Your task to perform on an android device: change the clock display to analog Image 0: 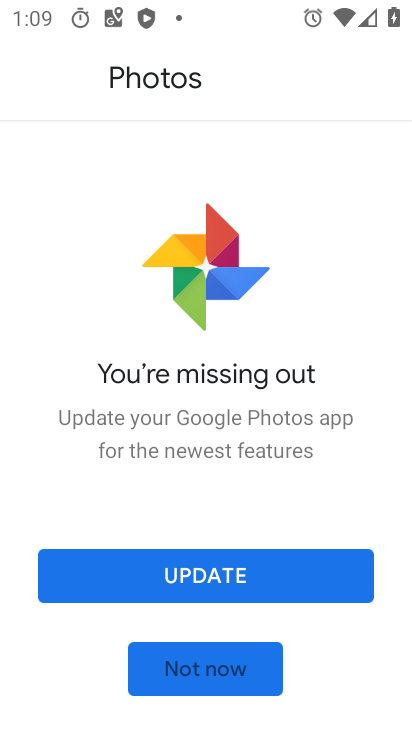
Step 0: press home button
Your task to perform on an android device: change the clock display to analog Image 1: 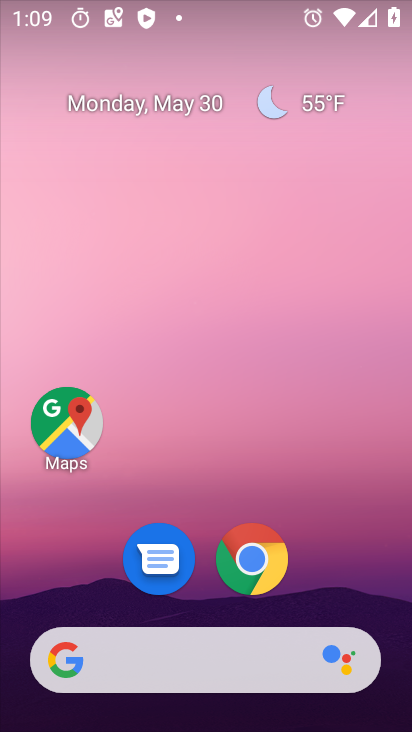
Step 1: drag from (205, 563) to (285, 38)
Your task to perform on an android device: change the clock display to analog Image 2: 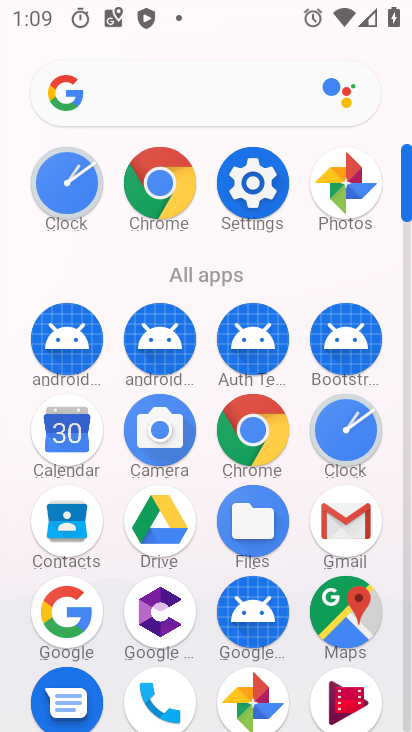
Step 2: click (337, 426)
Your task to perform on an android device: change the clock display to analog Image 3: 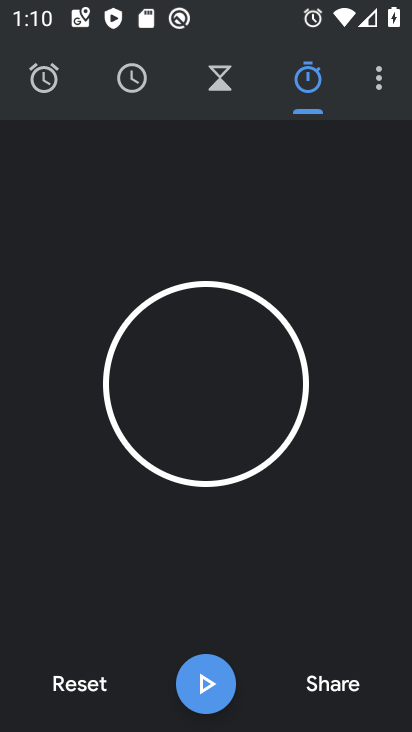
Step 3: click (378, 68)
Your task to perform on an android device: change the clock display to analog Image 4: 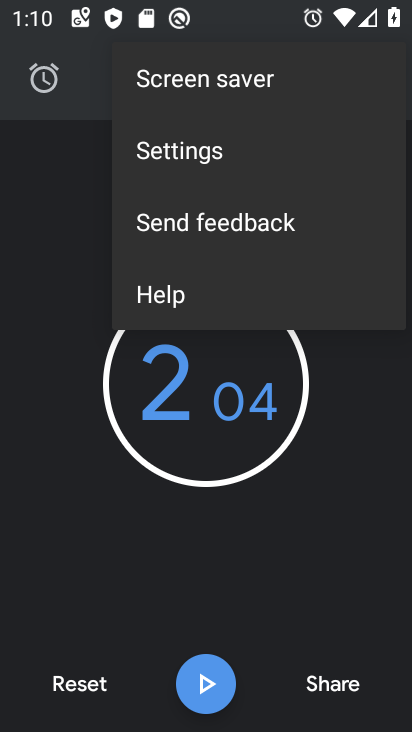
Step 4: click (168, 164)
Your task to perform on an android device: change the clock display to analog Image 5: 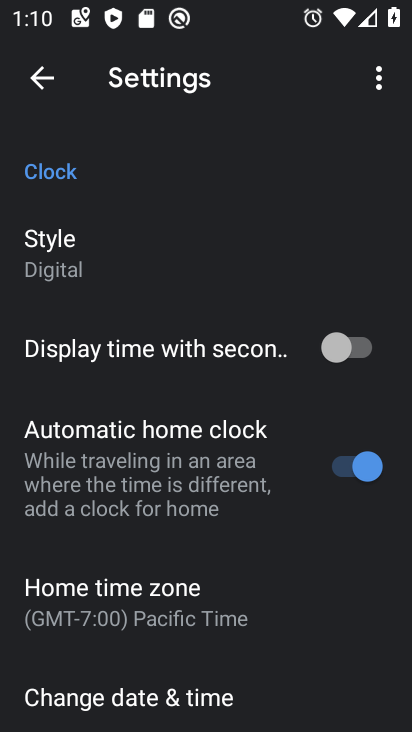
Step 5: click (77, 234)
Your task to perform on an android device: change the clock display to analog Image 6: 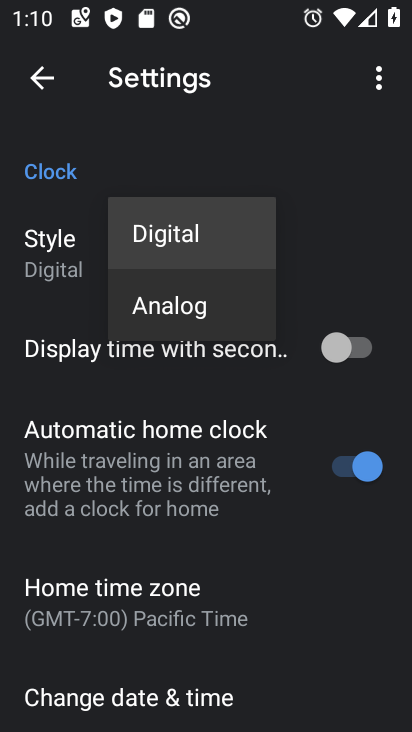
Step 6: click (178, 310)
Your task to perform on an android device: change the clock display to analog Image 7: 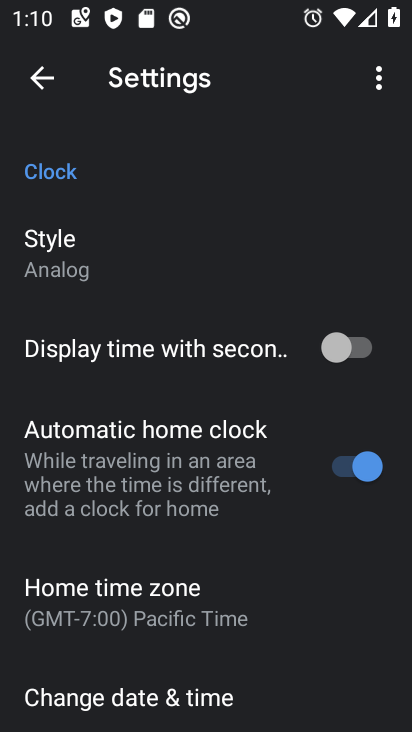
Step 7: task complete